Your task to perform on an android device: manage bookmarks in the chrome app Image 0: 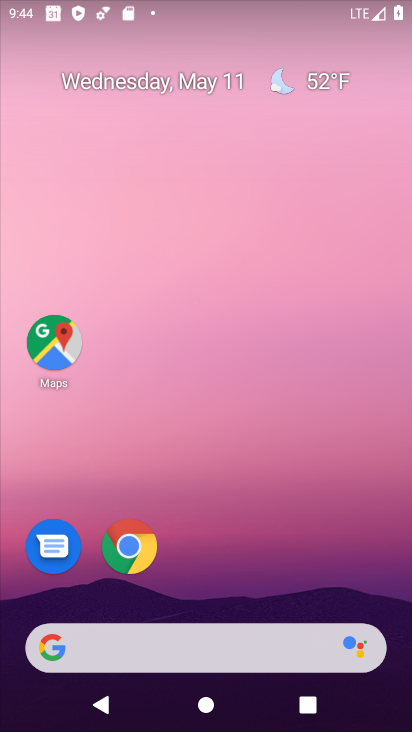
Step 0: click (125, 545)
Your task to perform on an android device: manage bookmarks in the chrome app Image 1: 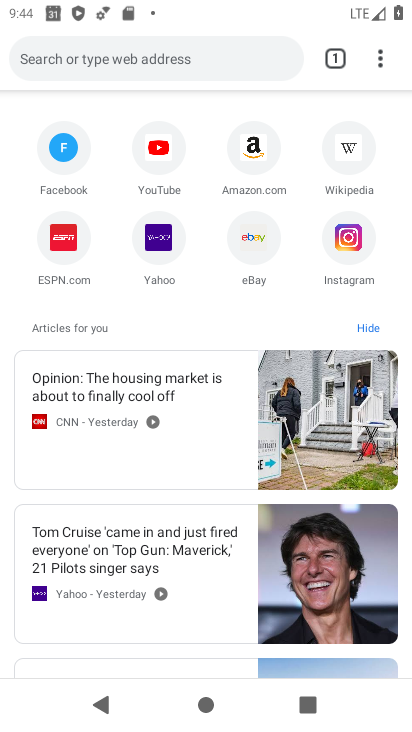
Step 1: drag from (383, 46) to (197, 284)
Your task to perform on an android device: manage bookmarks in the chrome app Image 2: 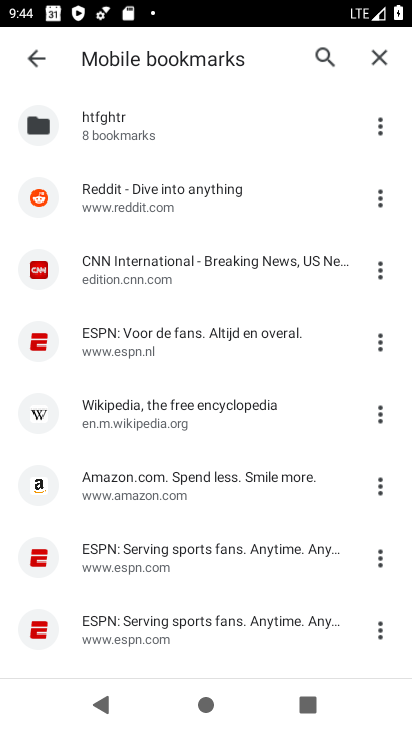
Step 2: click (379, 208)
Your task to perform on an android device: manage bookmarks in the chrome app Image 3: 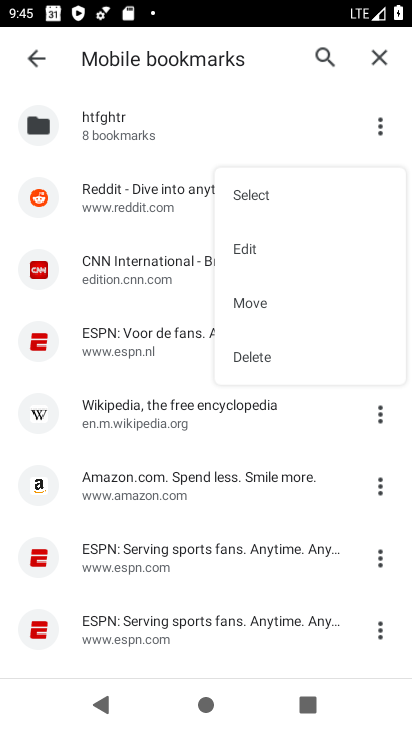
Step 3: click (267, 345)
Your task to perform on an android device: manage bookmarks in the chrome app Image 4: 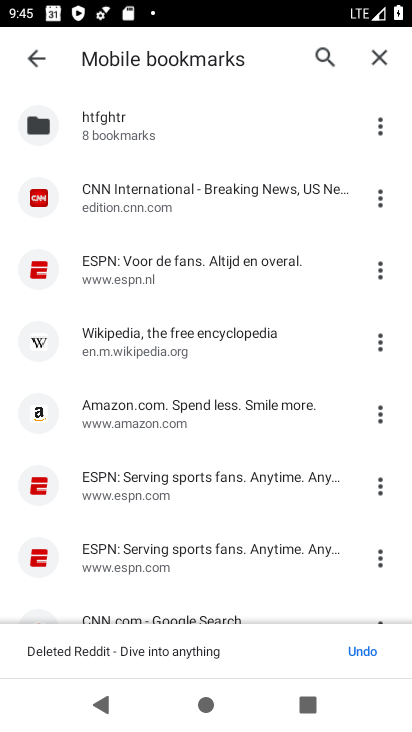
Step 4: task complete